Your task to perform on an android device: see tabs open on other devices in the chrome app Image 0: 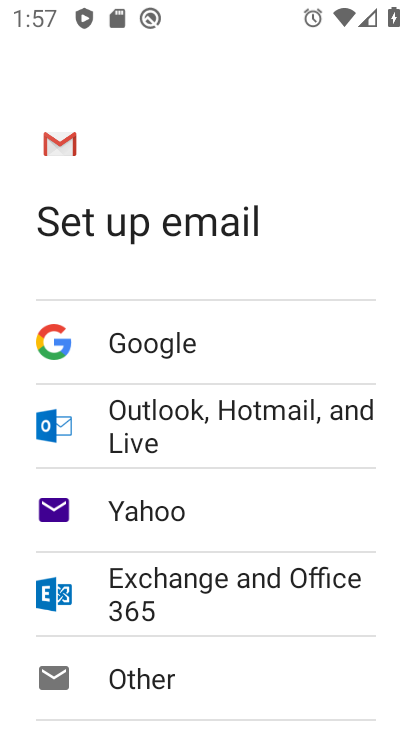
Step 0: press home button
Your task to perform on an android device: see tabs open on other devices in the chrome app Image 1: 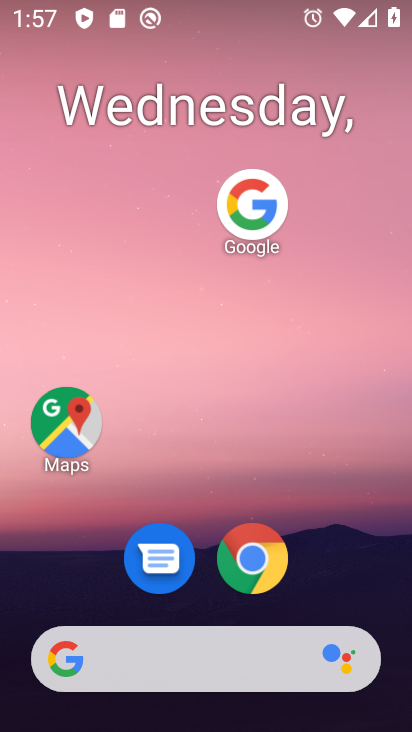
Step 1: click (361, 563)
Your task to perform on an android device: see tabs open on other devices in the chrome app Image 2: 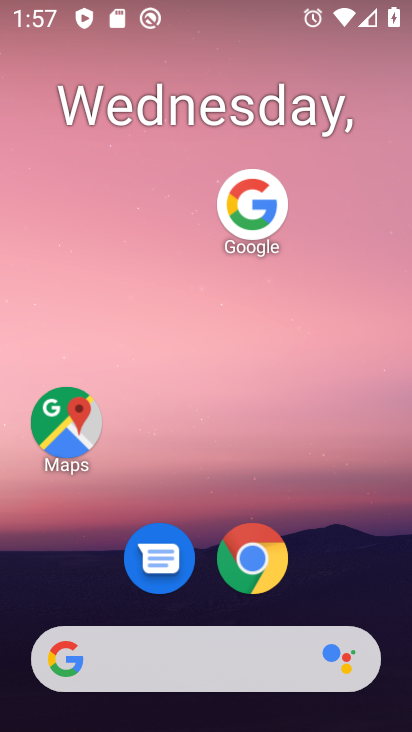
Step 2: drag from (361, 563) to (333, 18)
Your task to perform on an android device: see tabs open on other devices in the chrome app Image 3: 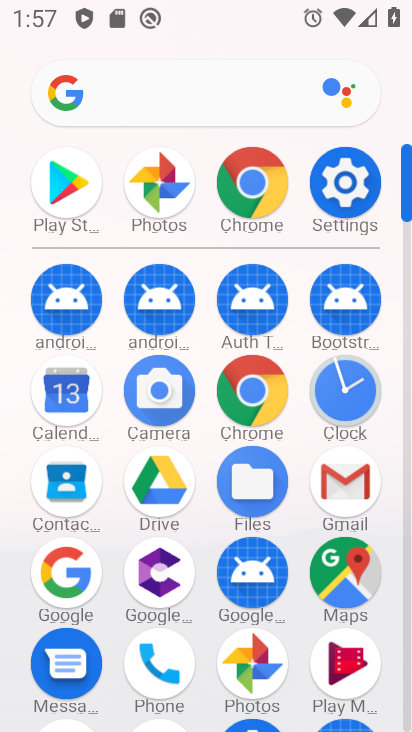
Step 3: click (250, 163)
Your task to perform on an android device: see tabs open on other devices in the chrome app Image 4: 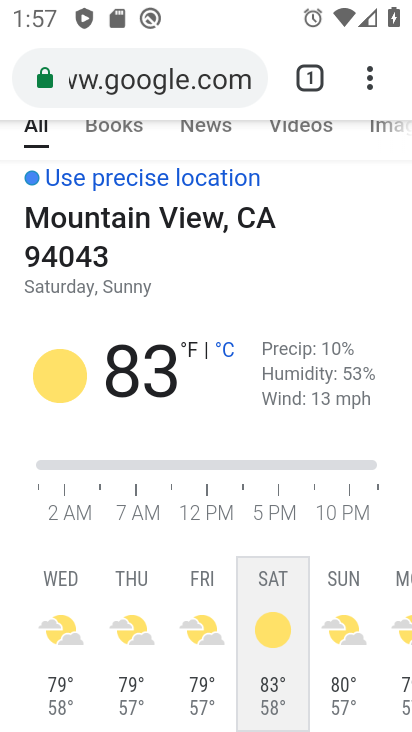
Step 4: click (372, 72)
Your task to perform on an android device: see tabs open on other devices in the chrome app Image 5: 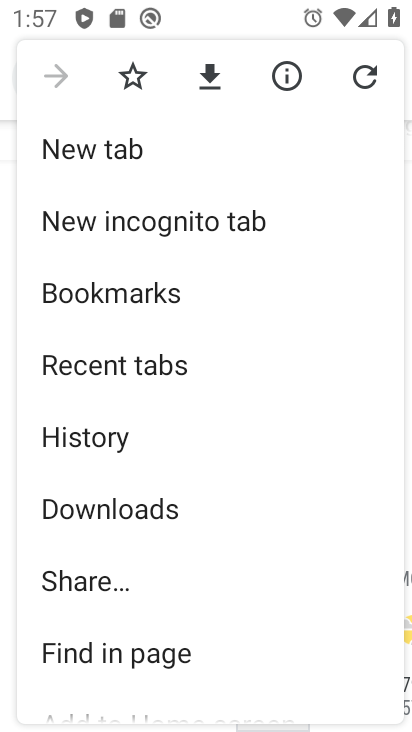
Step 5: click (186, 367)
Your task to perform on an android device: see tabs open on other devices in the chrome app Image 6: 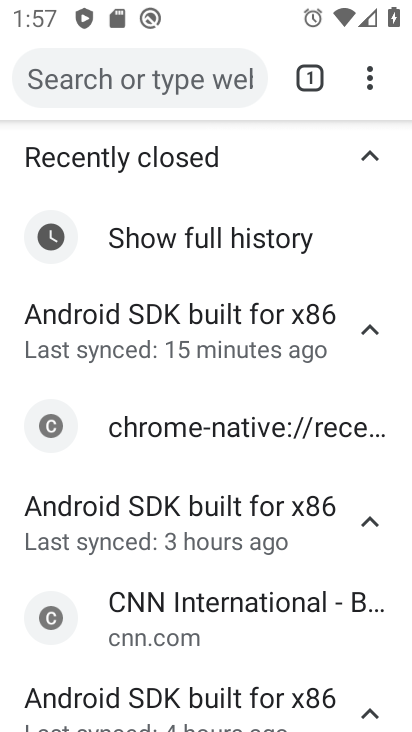
Step 6: task complete